Your task to perform on an android device: Open Chrome and go to settings Image 0: 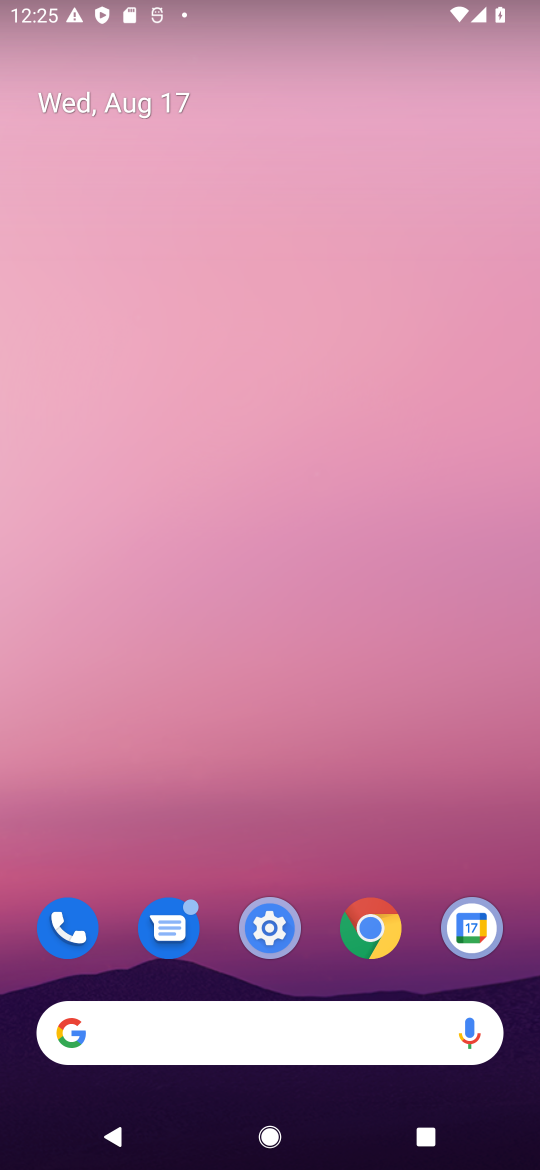
Step 0: click (358, 918)
Your task to perform on an android device: Open Chrome and go to settings Image 1: 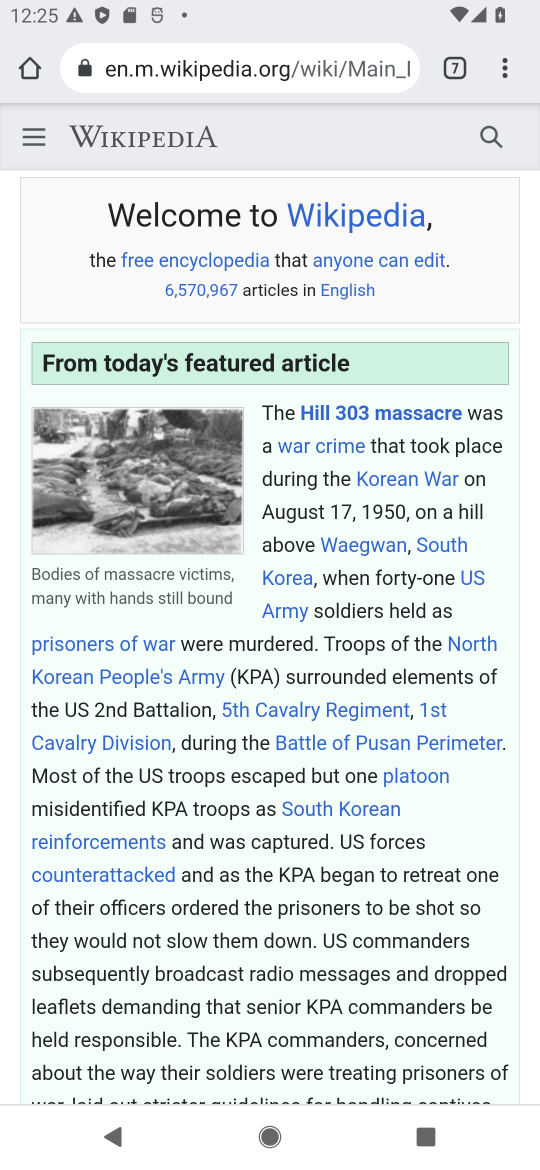
Step 1: click (509, 66)
Your task to perform on an android device: Open Chrome and go to settings Image 2: 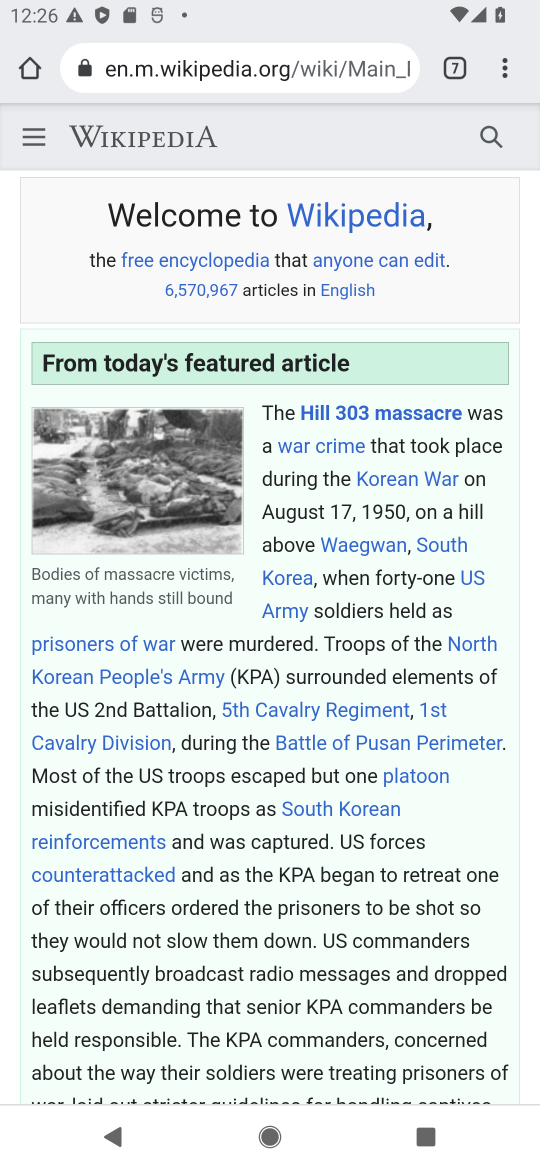
Step 2: click (511, 73)
Your task to perform on an android device: Open Chrome and go to settings Image 3: 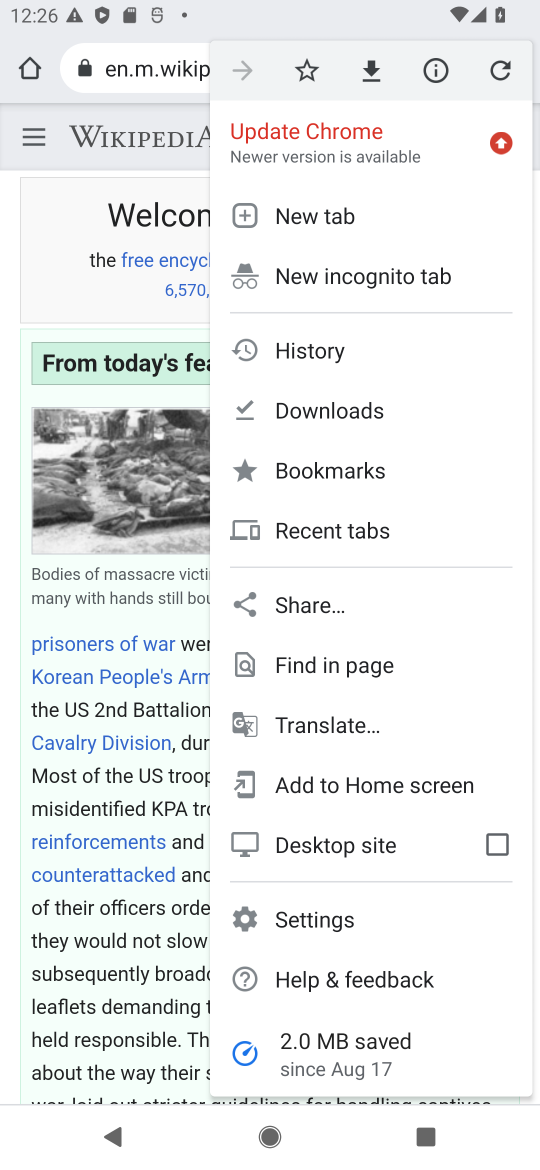
Step 3: click (385, 923)
Your task to perform on an android device: Open Chrome and go to settings Image 4: 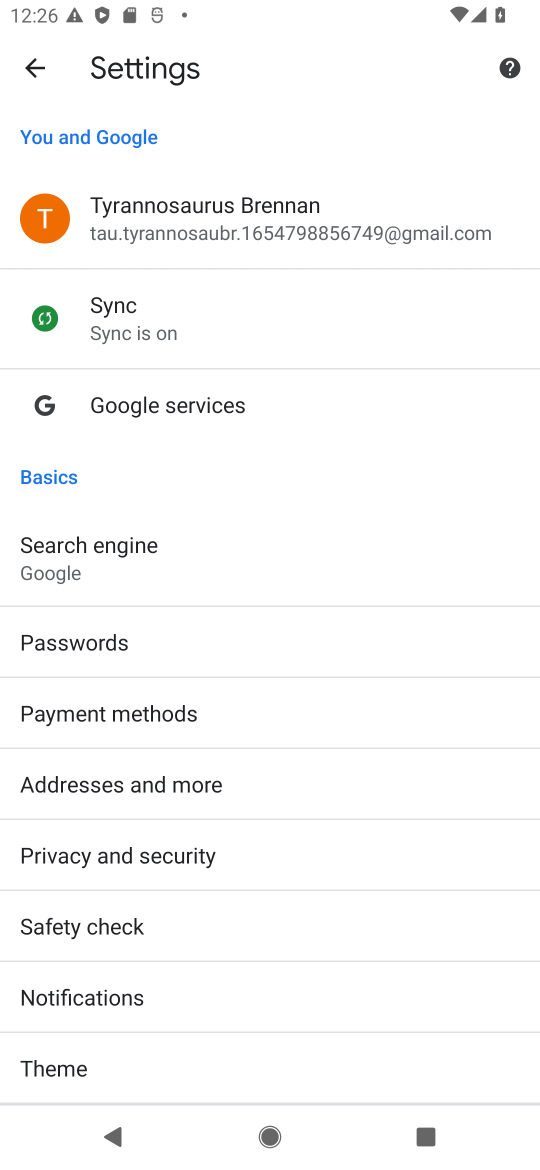
Step 4: task complete